Your task to perform on an android device: open device folders in google photos Image 0: 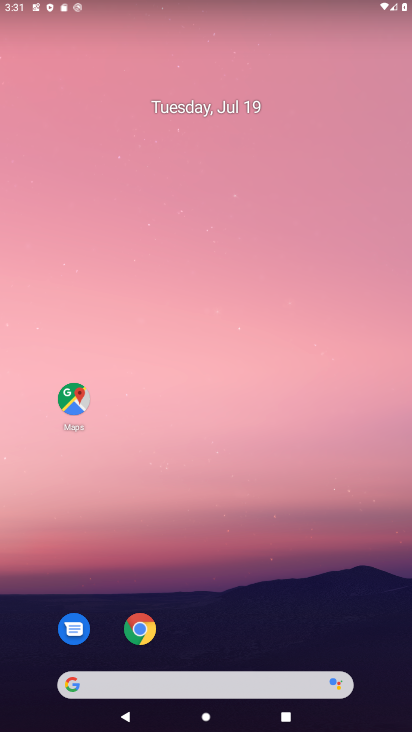
Step 0: drag from (191, 657) to (171, 310)
Your task to perform on an android device: open device folders in google photos Image 1: 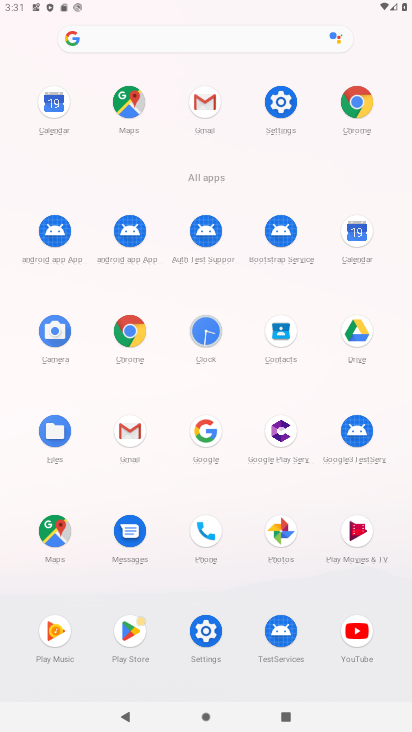
Step 1: click (281, 526)
Your task to perform on an android device: open device folders in google photos Image 2: 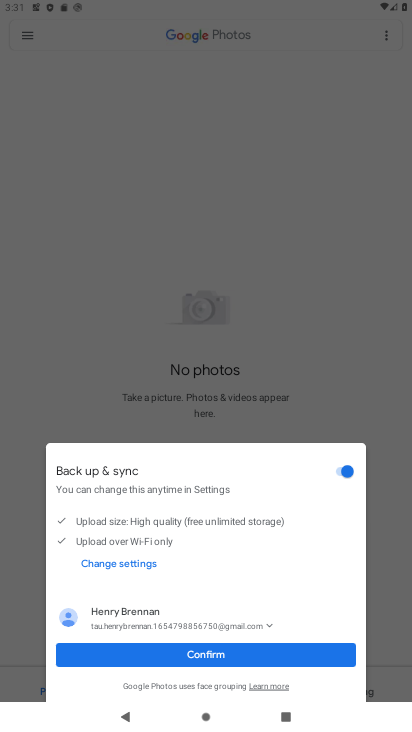
Step 2: click (20, 40)
Your task to perform on an android device: open device folders in google photos Image 3: 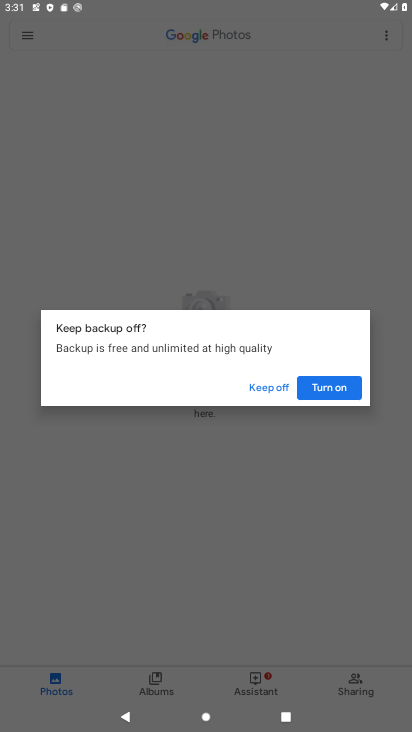
Step 3: click (319, 393)
Your task to perform on an android device: open device folders in google photos Image 4: 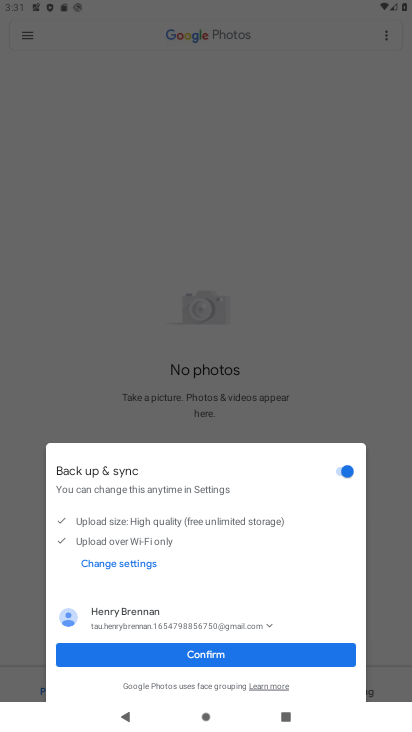
Step 4: click (184, 656)
Your task to perform on an android device: open device folders in google photos Image 5: 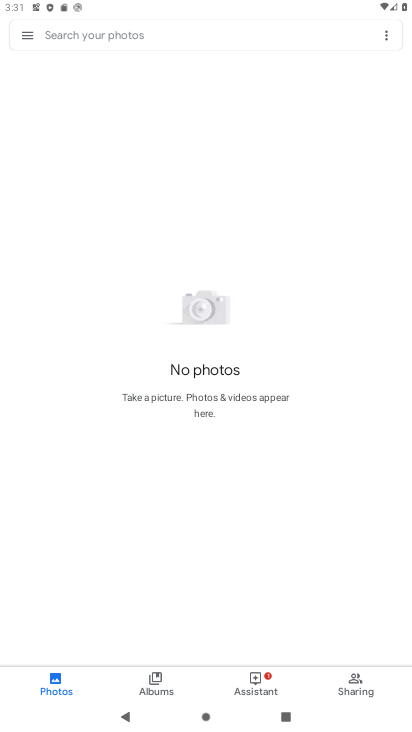
Step 5: click (27, 35)
Your task to perform on an android device: open device folders in google photos Image 6: 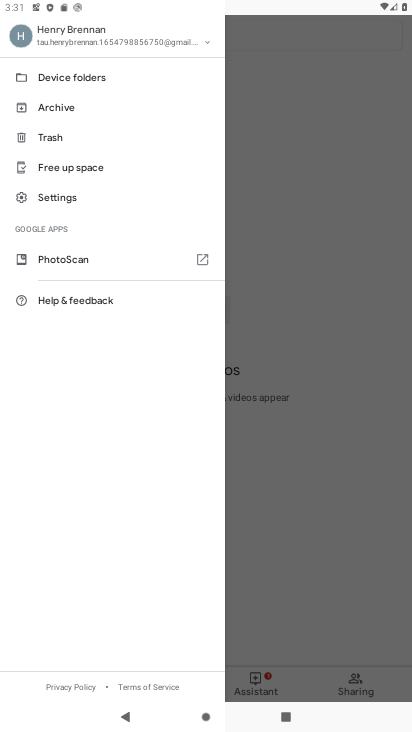
Step 6: click (61, 79)
Your task to perform on an android device: open device folders in google photos Image 7: 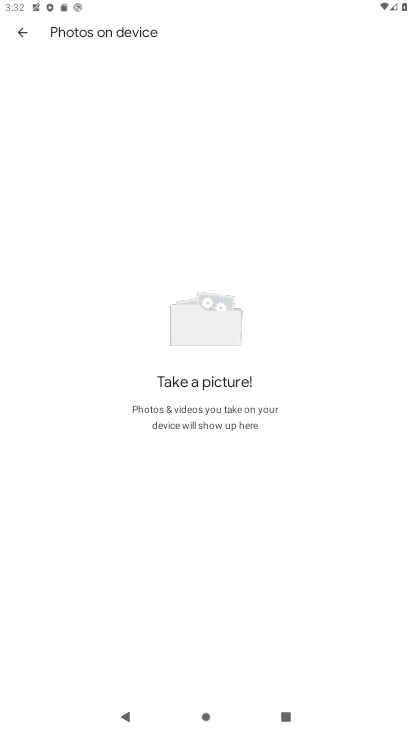
Step 7: task complete